Your task to perform on an android device: toggle airplane mode Image 0: 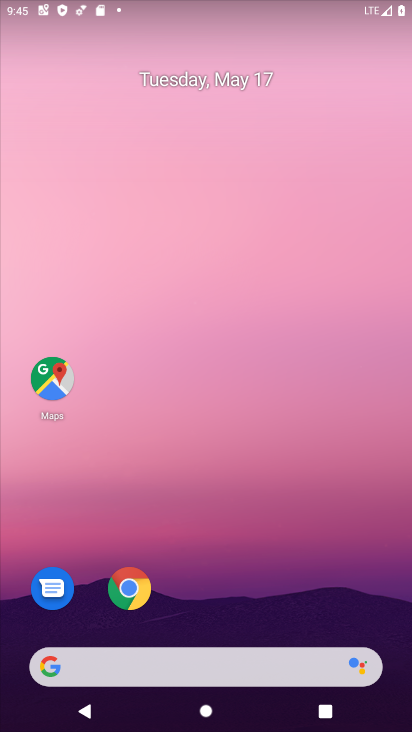
Step 0: drag from (223, 635) to (311, 13)
Your task to perform on an android device: toggle airplane mode Image 1: 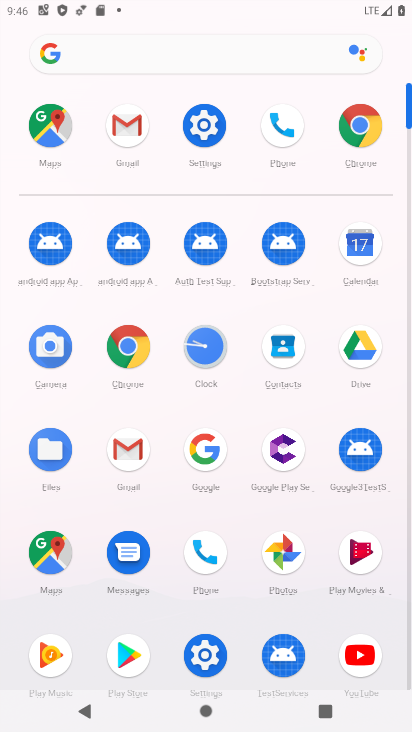
Step 1: click (209, 131)
Your task to perform on an android device: toggle airplane mode Image 2: 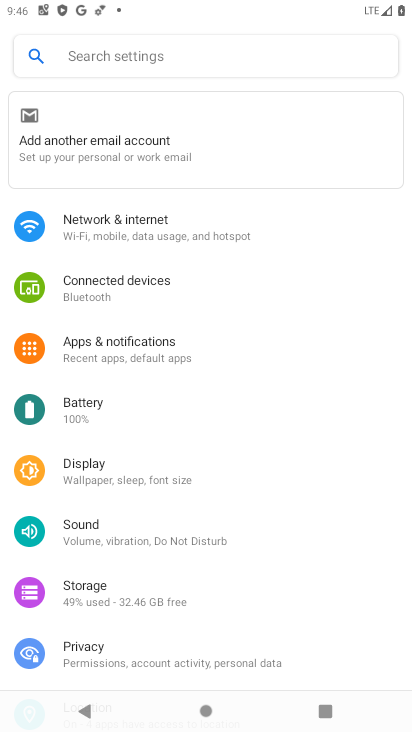
Step 2: click (121, 232)
Your task to perform on an android device: toggle airplane mode Image 3: 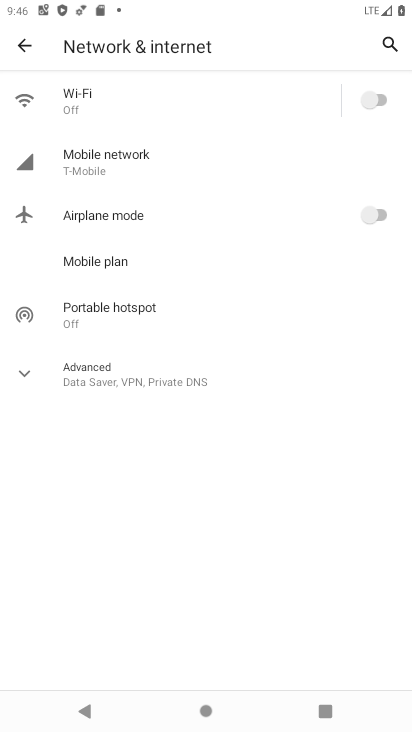
Step 3: click (359, 216)
Your task to perform on an android device: toggle airplane mode Image 4: 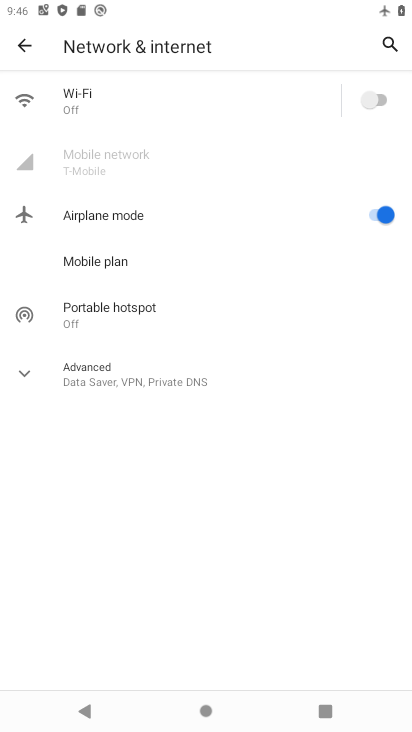
Step 4: task complete